Your task to perform on an android device: Go to network settings Image 0: 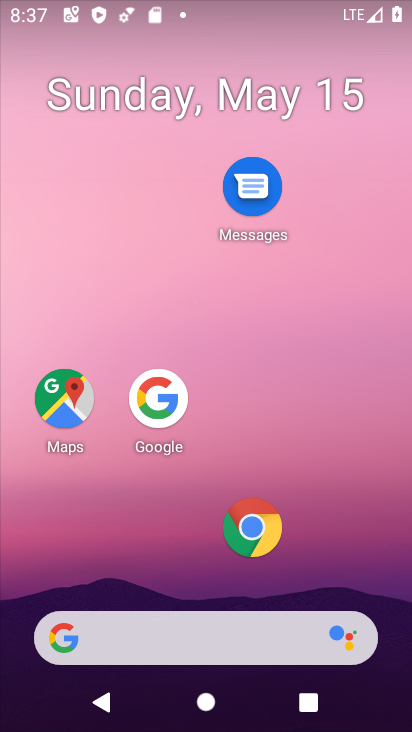
Step 0: press home button
Your task to perform on an android device: Go to network settings Image 1: 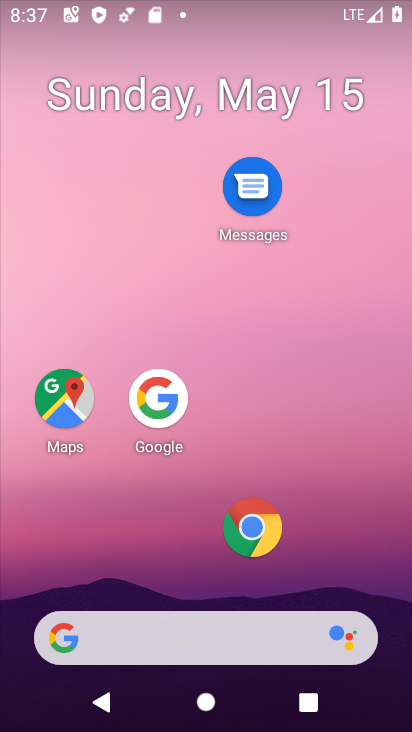
Step 1: drag from (122, 636) to (315, 117)
Your task to perform on an android device: Go to network settings Image 2: 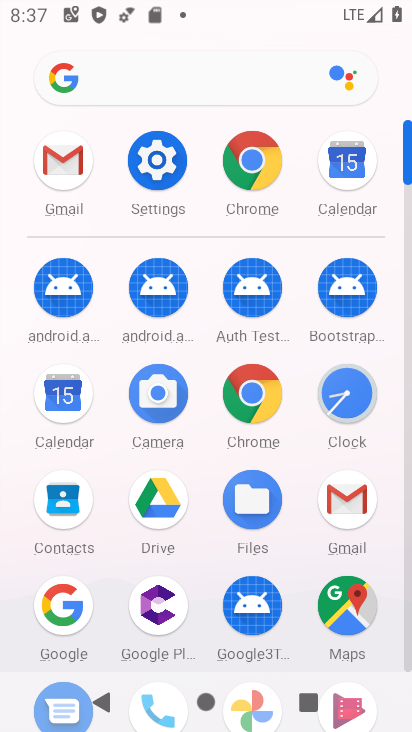
Step 2: click (169, 159)
Your task to perform on an android device: Go to network settings Image 3: 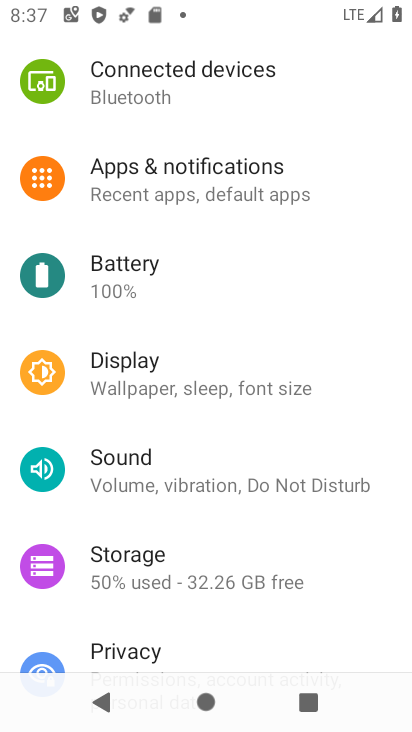
Step 3: drag from (326, 104) to (227, 616)
Your task to perform on an android device: Go to network settings Image 4: 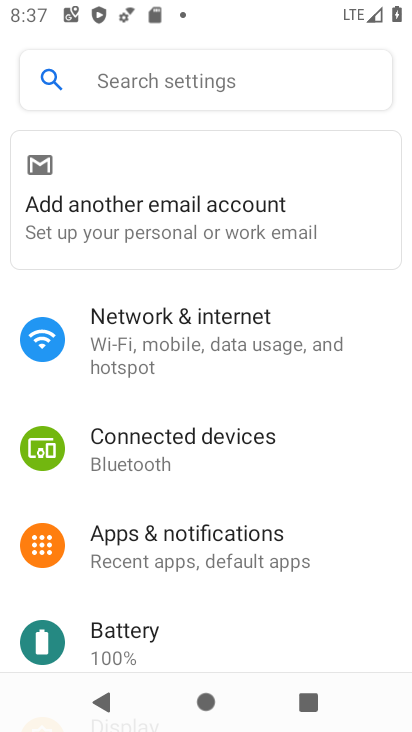
Step 4: click (207, 327)
Your task to perform on an android device: Go to network settings Image 5: 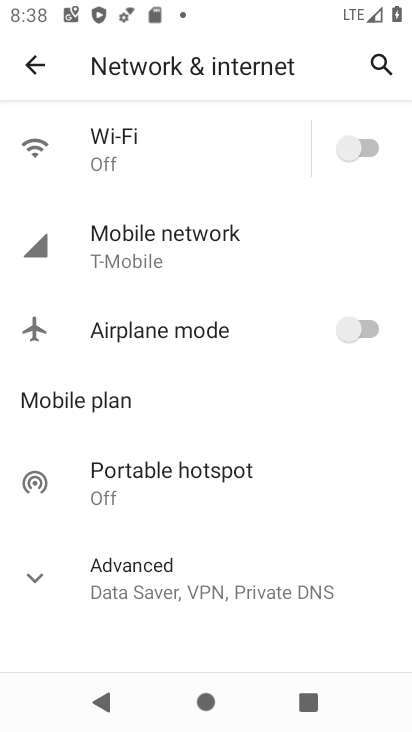
Step 5: task complete